Your task to perform on an android device: Go to battery settings Image 0: 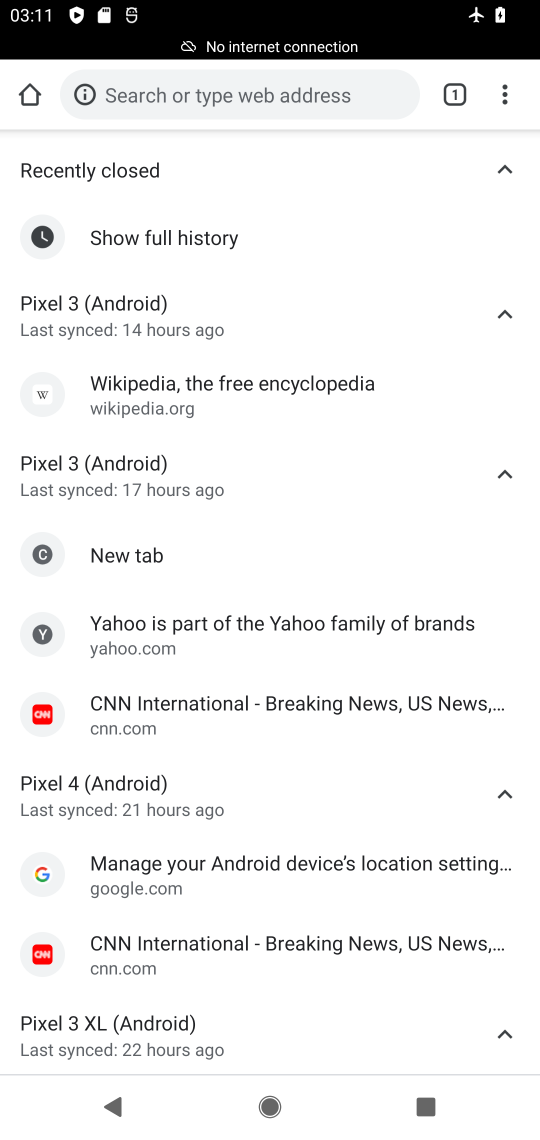
Step 0: press home button
Your task to perform on an android device: Go to battery settings Image 1: 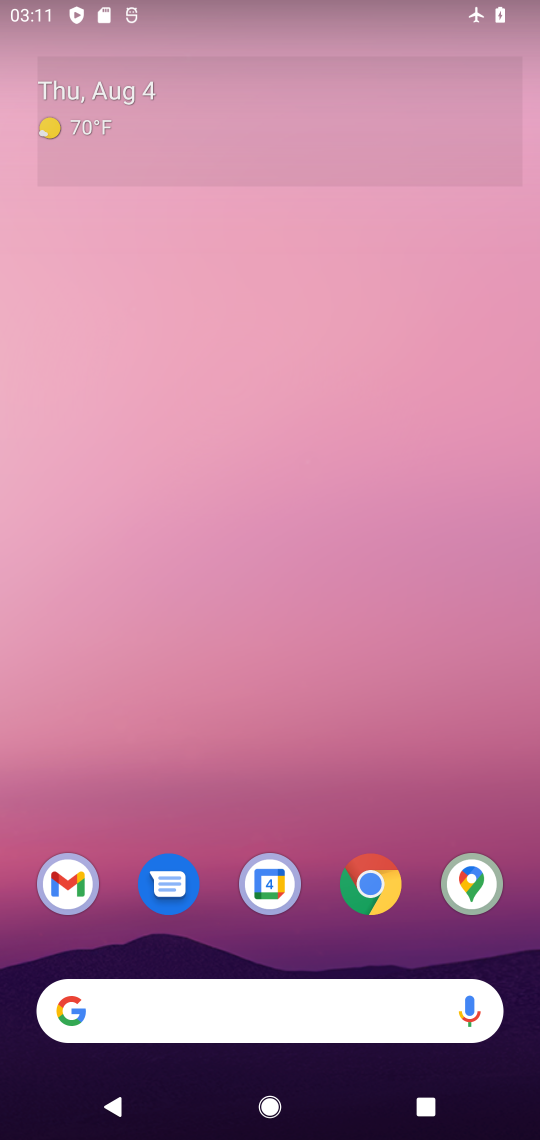
Step 1: drag from (315, 763) to (350, 265)
Your task to perform on an android device: Go to battery settings Image 2: 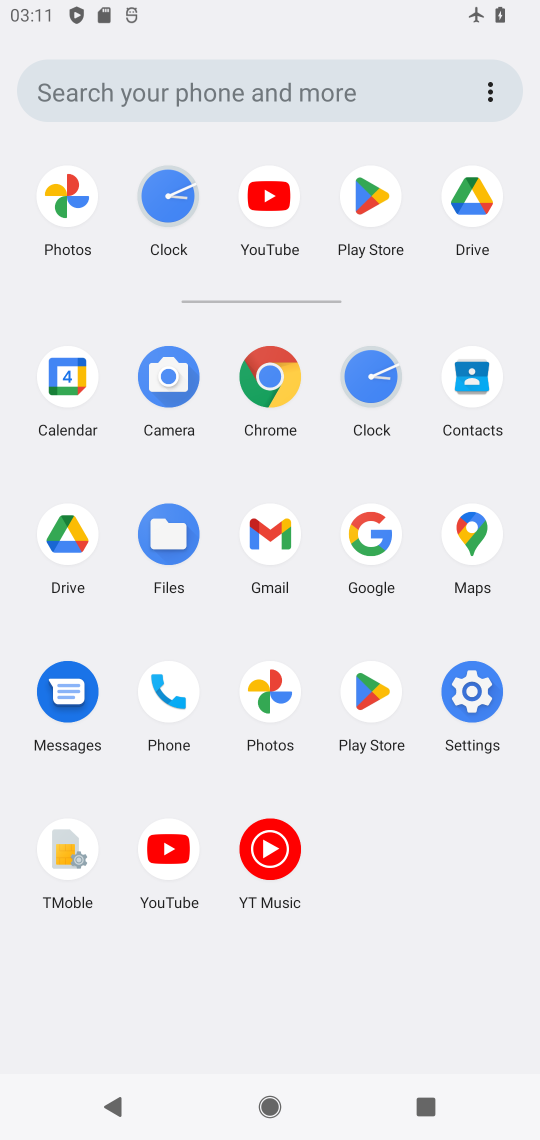
Step 2: click (473, 705)
Your task to perform on an android device: Go to battery settings Image 3: 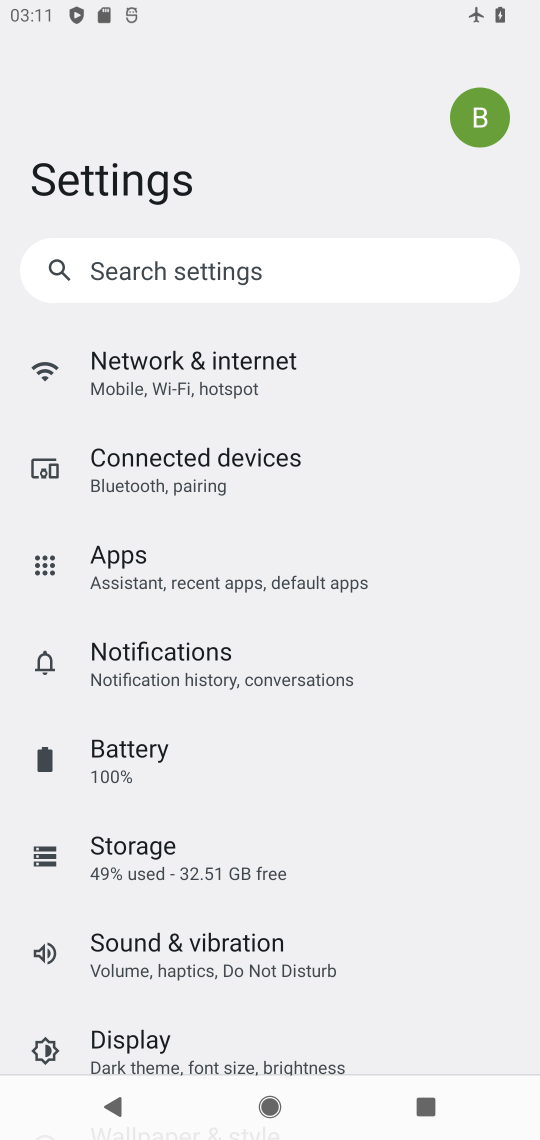
Step 3: drag from (437, 933) to (452, 752)
Your task to perform on an android device: Go to battery settings Image 4: 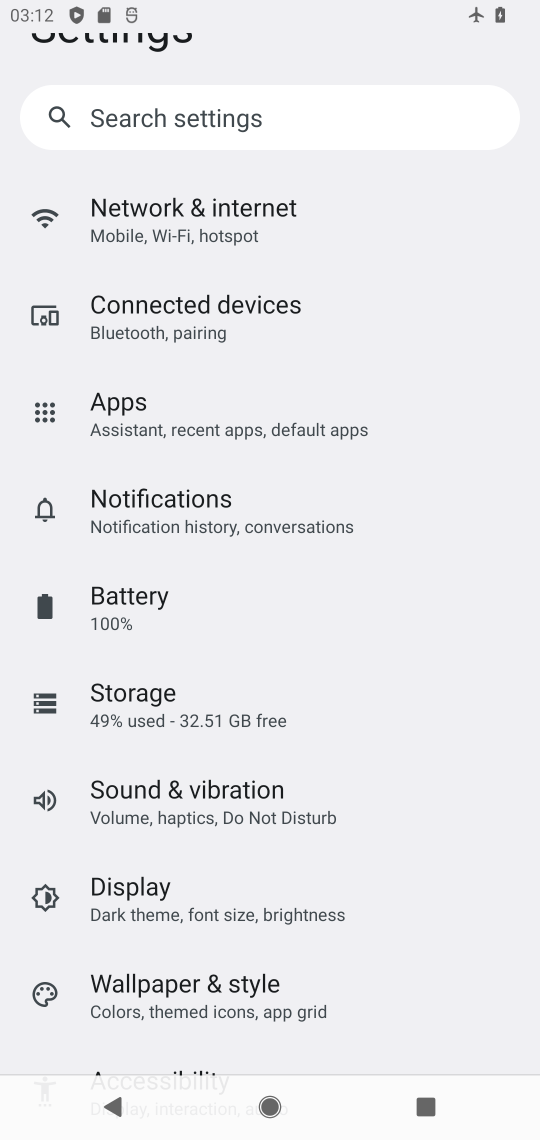
Step 4: drag from (445, 941) to (441, 708)
Your task to perform on an android device: Go to battery settings Image 5: 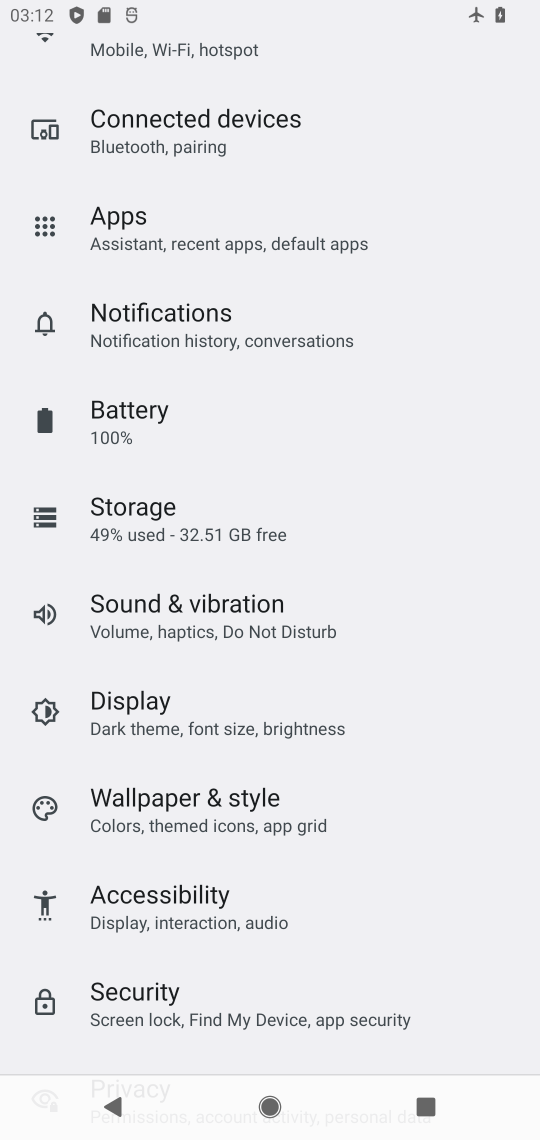
Step 5: drag from (407, 927) to (433, 712)
Your task to perform on an android device: Go to battery settings Image 6: 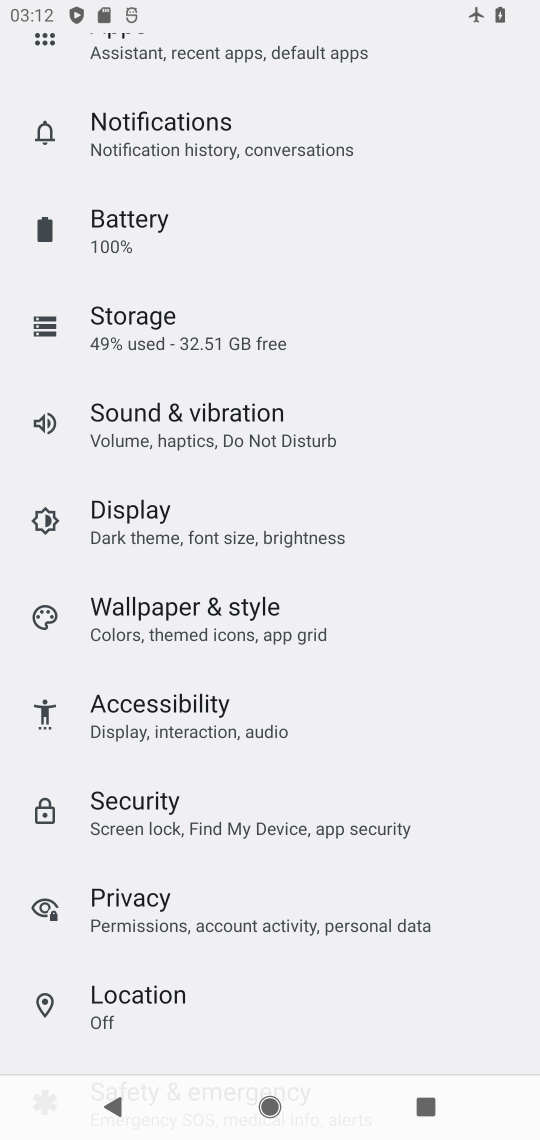
Step 6: drag from (445, 955) to (461, 766)
Your task to perform on an android device: Go to battery settings Image 7: 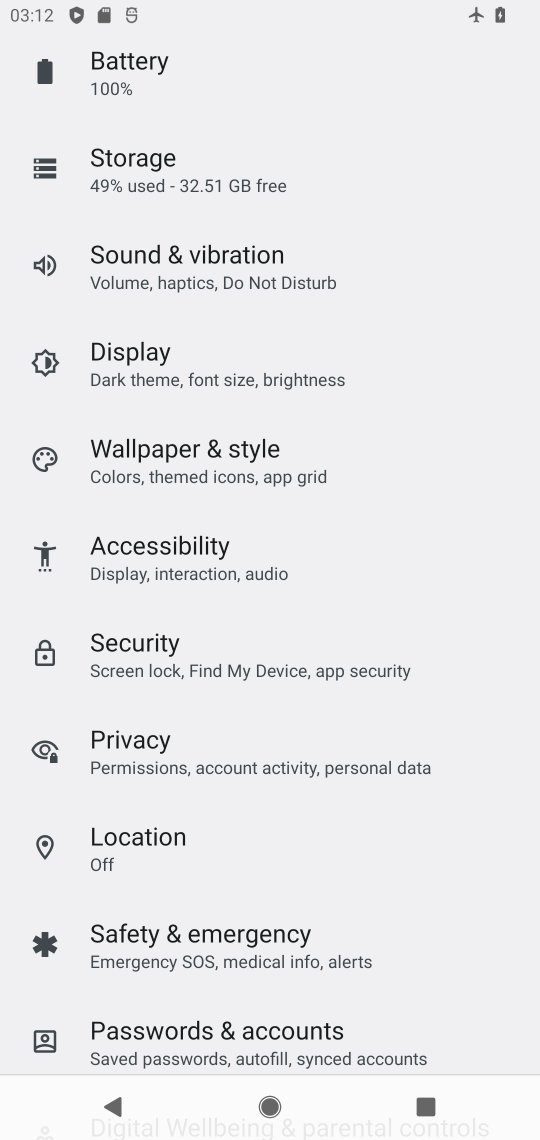
Step 7: drag from (459, 966) to (470, 779)
Your task to perform on an android device: Go to battery settings Image 8: 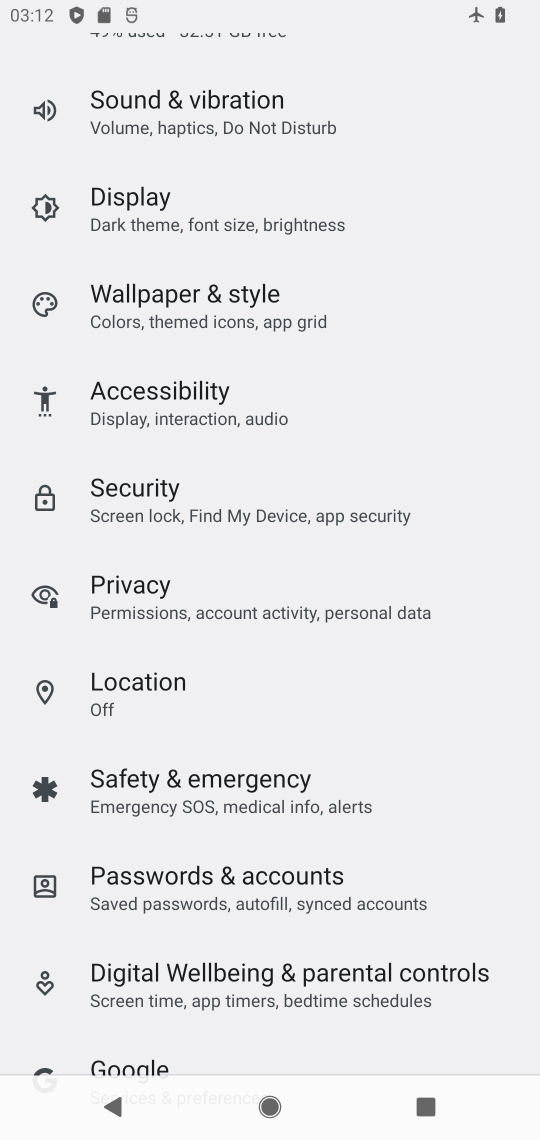
Step 8: drag from (474, 1040) to (479, 798)
Your task to perform on an android device: Go to battery settings Image 9: 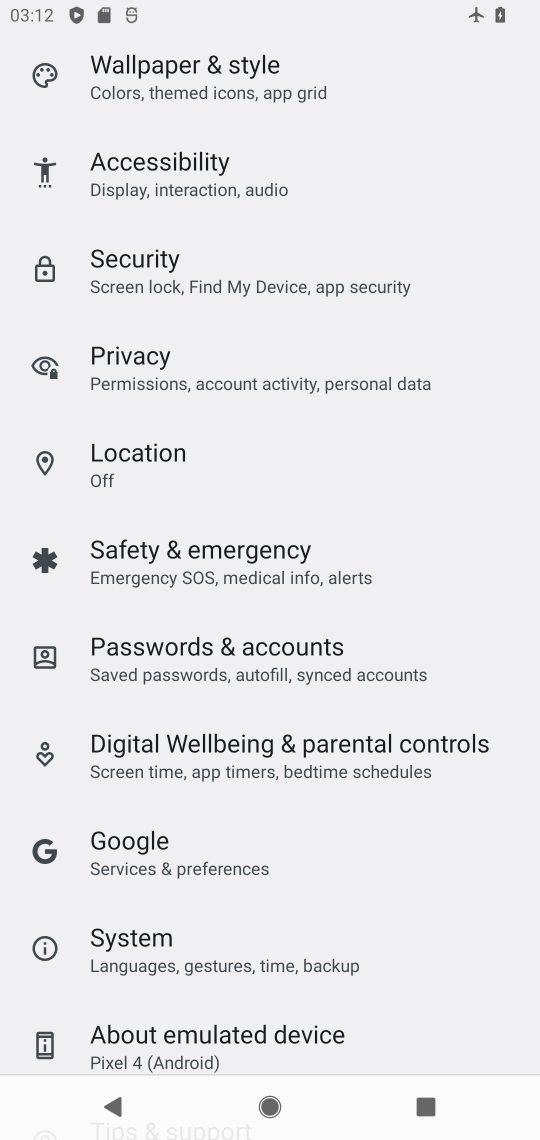
Step 9: drag from (483, 606) to (485, 816)
Your task to perform on an android device: Go to battery settings Image 10: 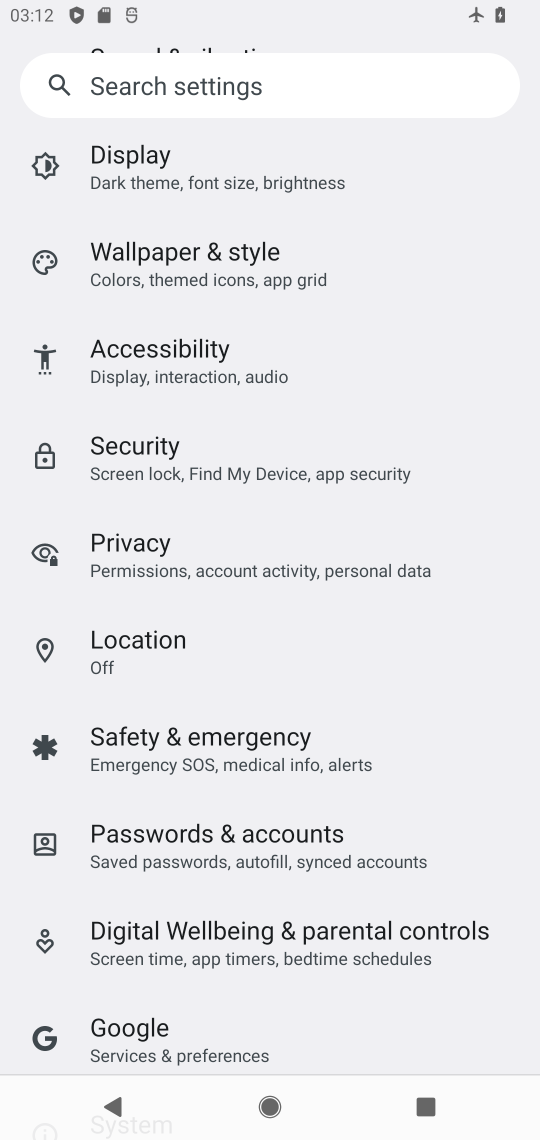
Step 10: drag from (483, 571) to (482, 744)
Your task to perform on an android device: Go to battery settings Image 11: 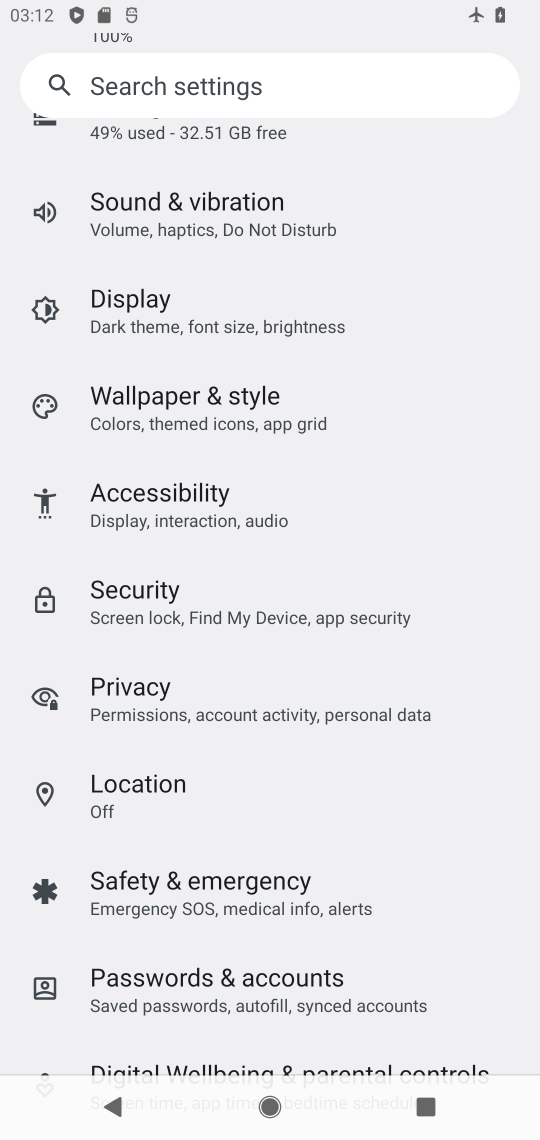
Step 11: drag from (474, 414) to (478, 703)
Your task to perform on an android device: Go to battery settings Image 12: 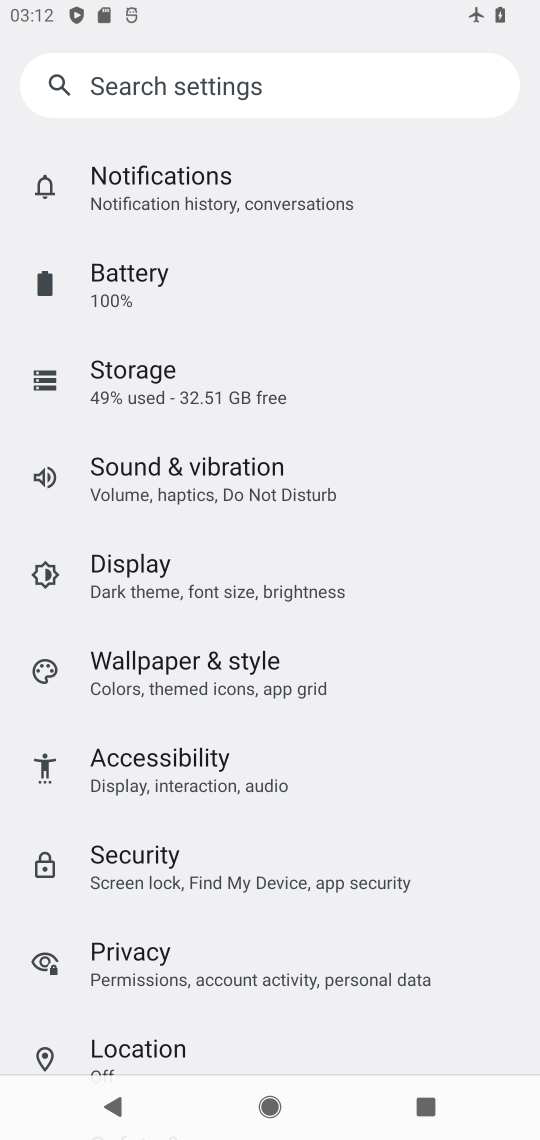
Step 12: drag from (444, 415) to (436, 668)
Your task to perform on an android device: Go to battery settings Image 13: 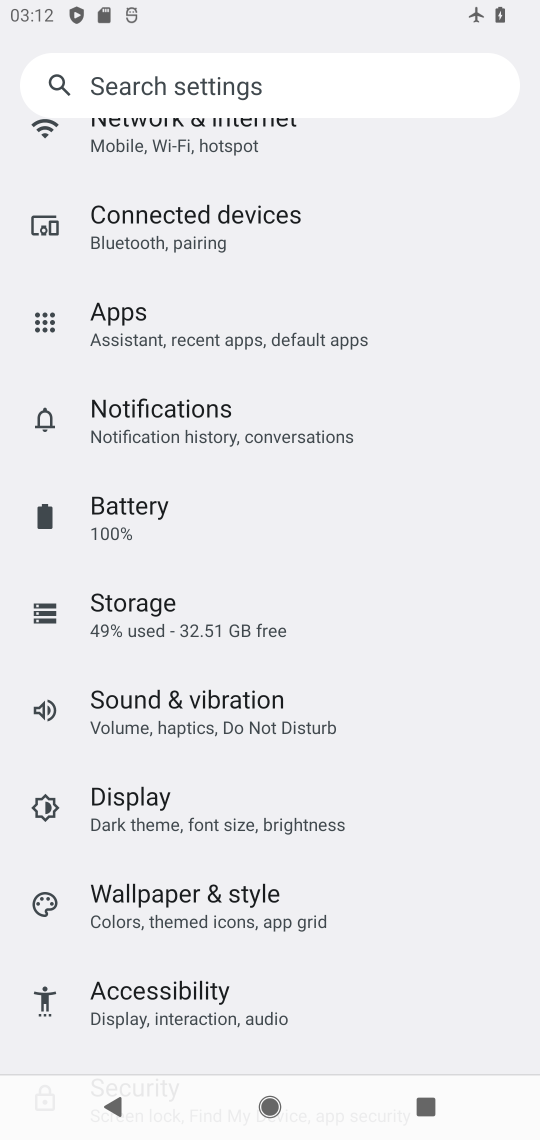
Step 13: drag from (417, 357) to (409, 589)
Your task to perform on an android device: Go to battery settings Image 14: 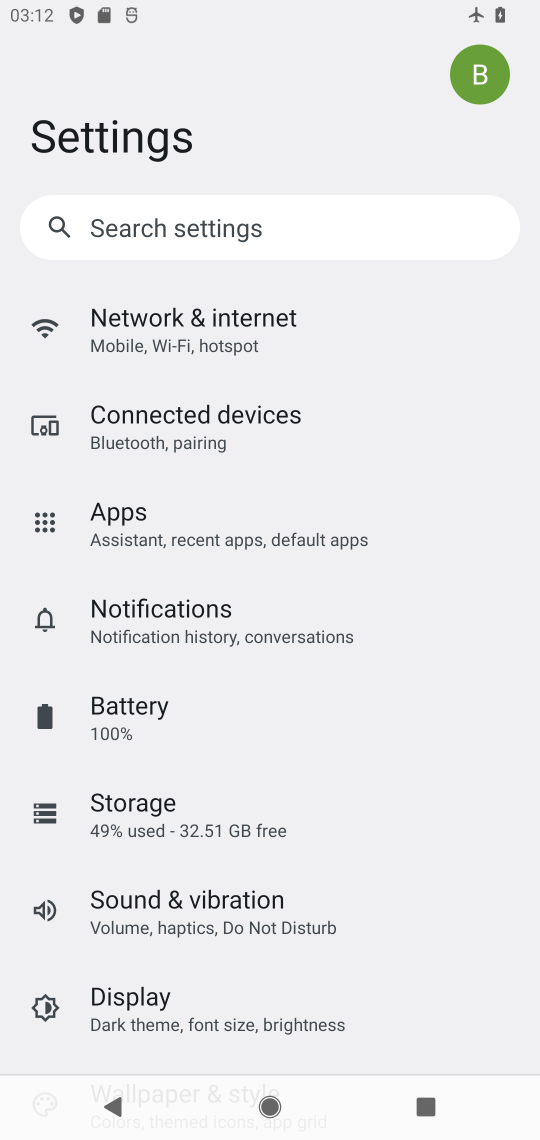
Step 14: click (247, 718)
Your task to perform on an android device: Go to battery settings Image 15: 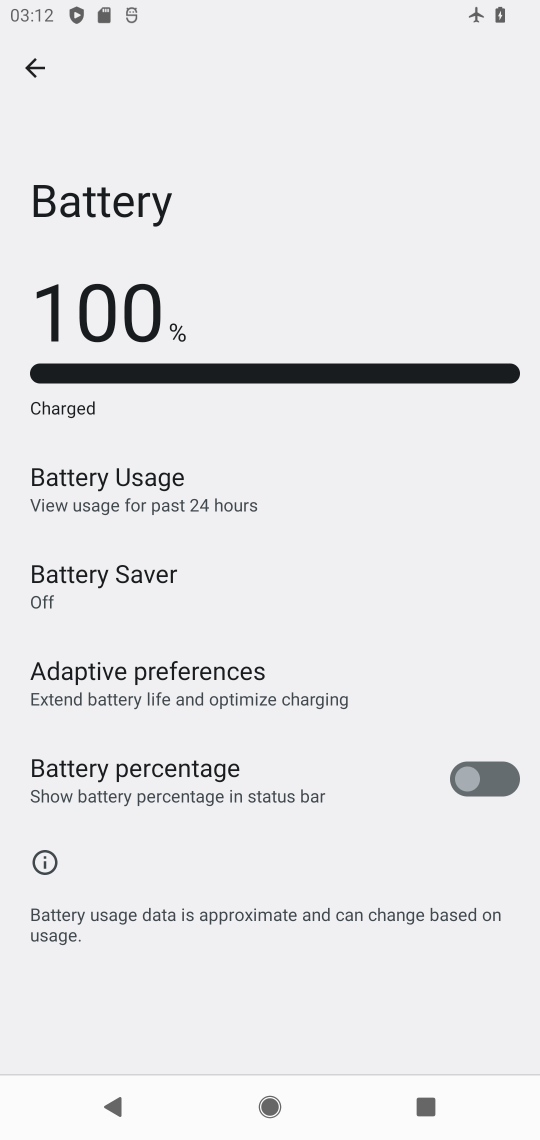
Step 15: task complete